Your task to perform on an android device: see sites visited before in the chrome app Image 0: 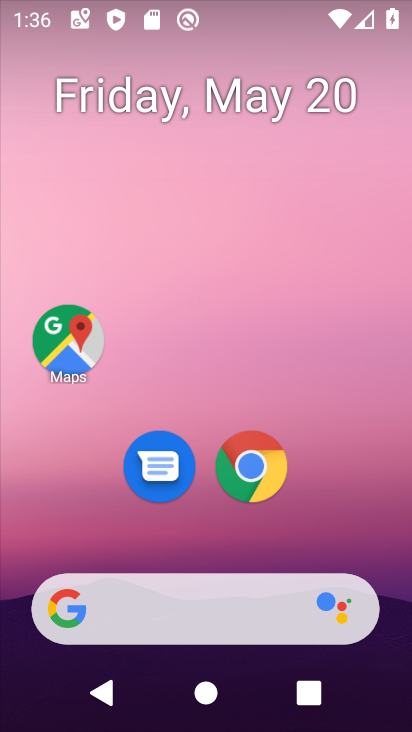
Step 0: click (254, 485)
Your task to perform on an android device: see sites visited before in the chrome app Image 1: 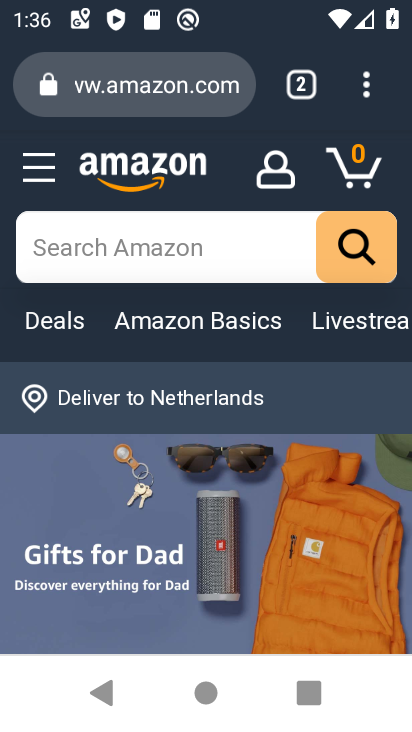
Step 1: click (308, 101)
Your task to perform on an android device: see sites visited before in the chrome app Image 2: 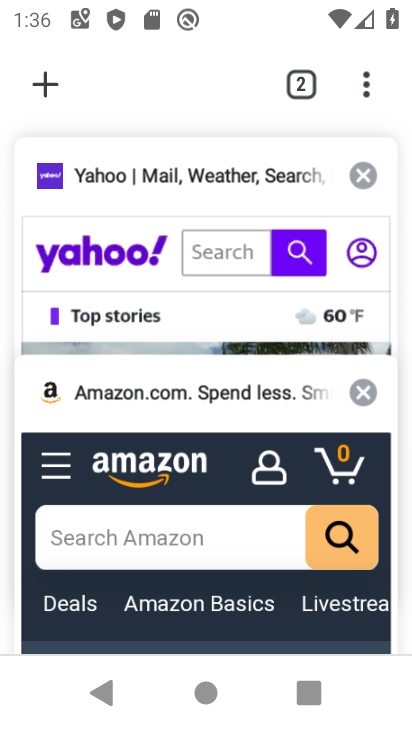
Step 2: task complete